Your task to perform on an android device: Show me productivity apps on the Play Store Image 0: 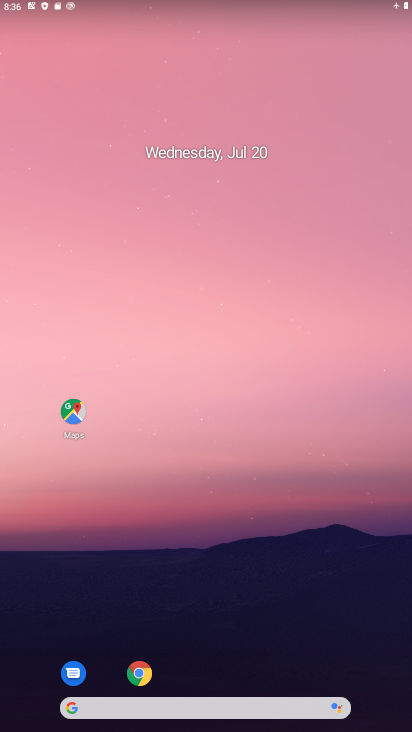
Step 0: drag from (218, 585) to (216, 197)
Your task to perform on an android device: Show me productivity apps on the Play Store Image 1: 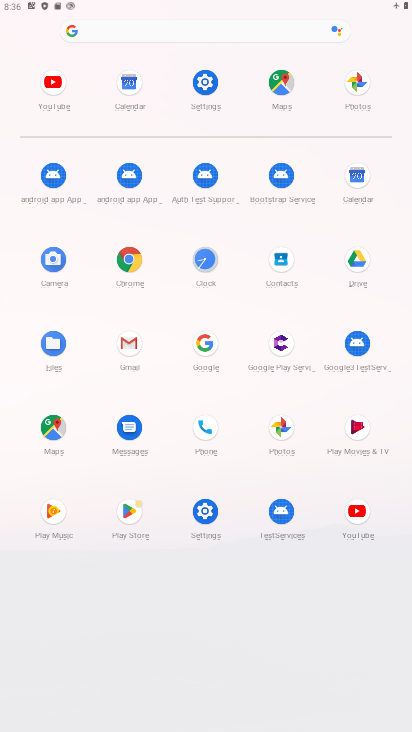
Step 1: click (128, 512)
Your task to perform on an android device: Show me productivity apps on the Play Store Image 2: 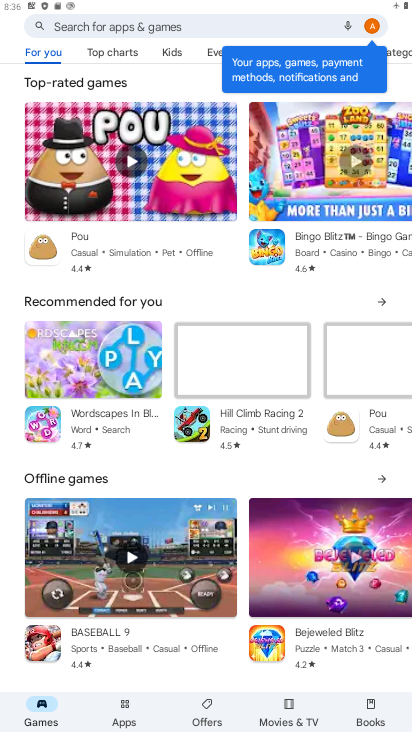
Step 2: click (131, 706)
Your task to perform on an android device: Show me productivity apps on the Play Store Image 3: 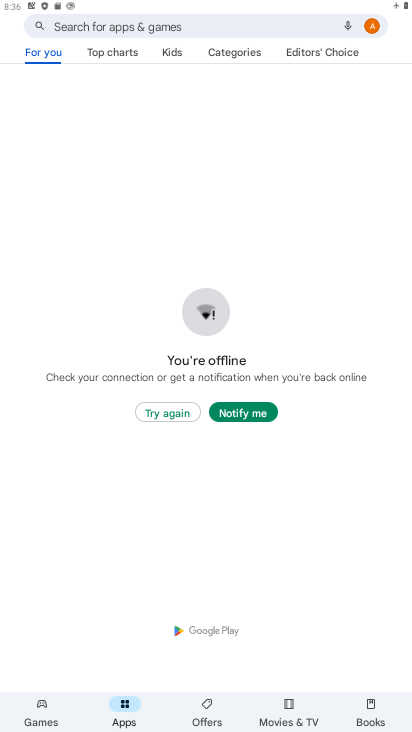
Step 3: click (244, 54)
Your task to perform on an android device: Show me productivity apps on the Play Store Image 4: 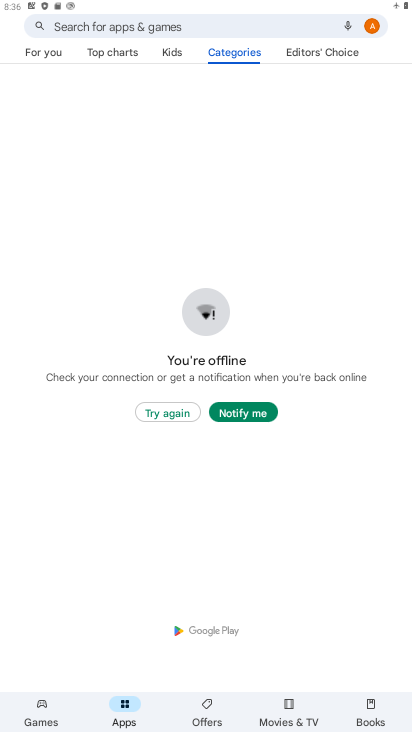
Step 4: click (182, 413)
Your task to perform on an android device: Show me productivity apps on the Play Store Image 5: 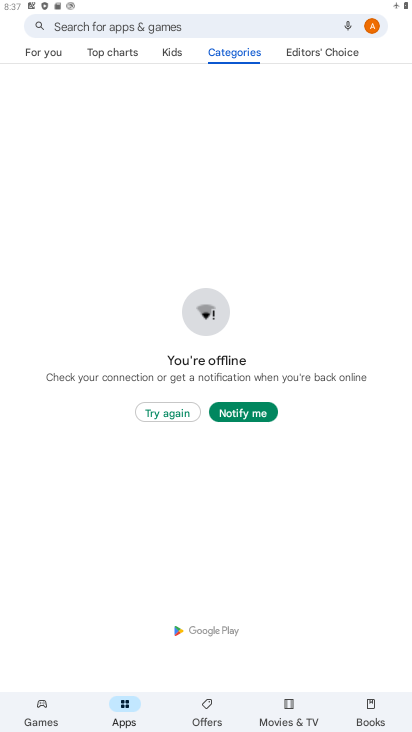
Step 5: task complete